Your task to perform on an android device: turn on airplane mode Image 0: 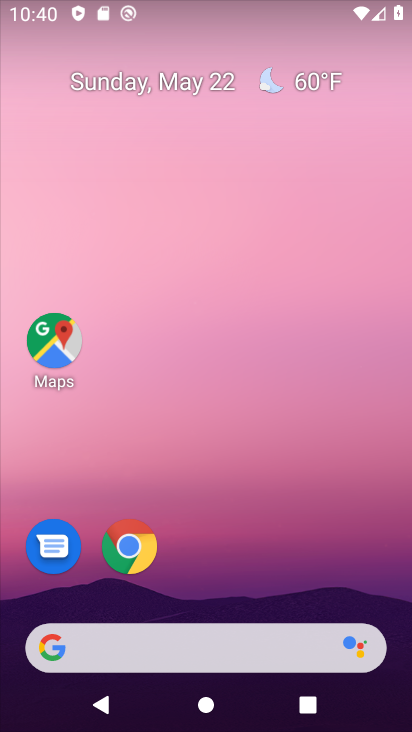
Step 0: drag from (230, 707) to (230, 135)
Your task to perform on an android device: turn on airplane mode Image 1: 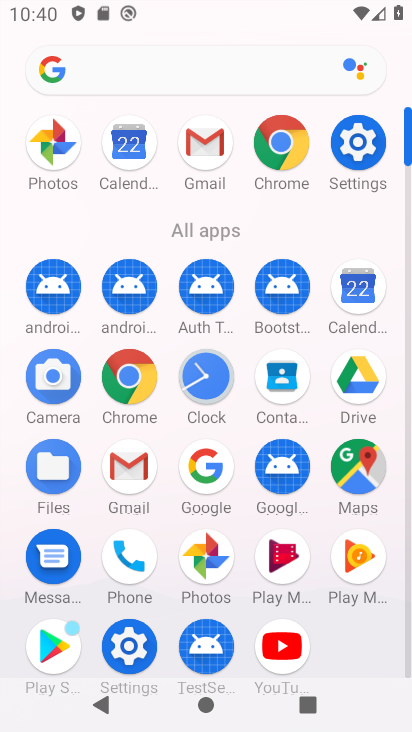
Step 1: click (357, 146)
Your task to perform on an android device: turn on airplane mode Image 2: 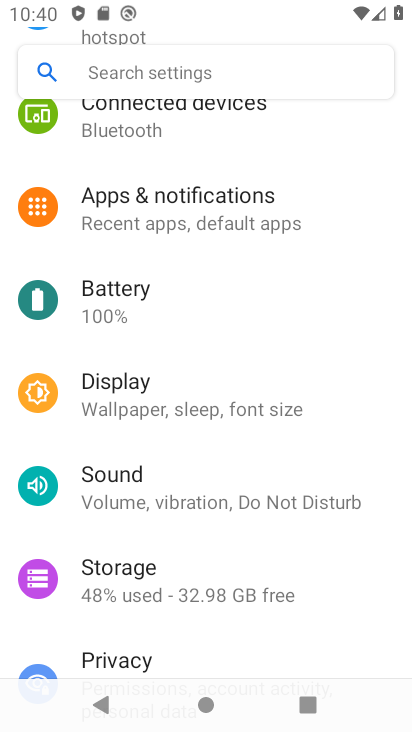
Step 2: drag from (208, 201) to (206, 599)
Your task to perform on an android device: turn on airplane mode Image 3: 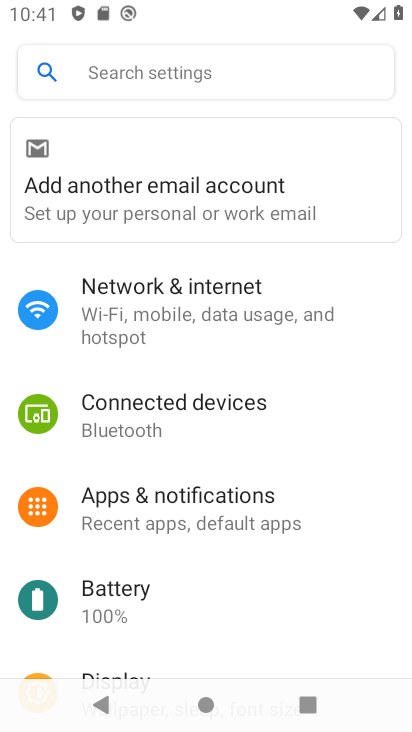
Step 3: click (167, 297)
Your task to perform on an android device: turn on airplane mode Image 4: 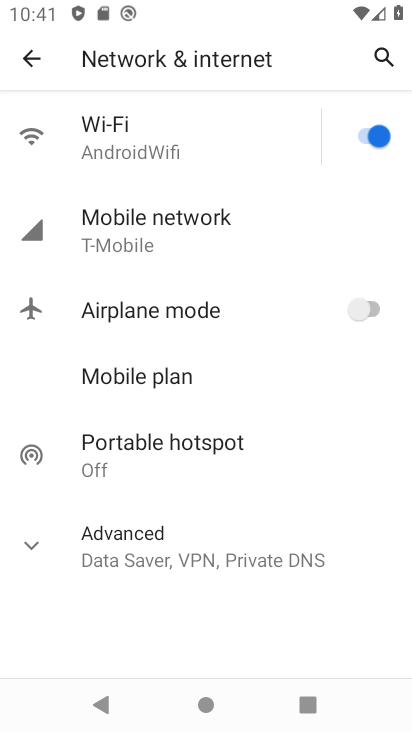
Step 4: click (374, 304)
Your task to perform on an android device: turn on airplane mode Image 5: 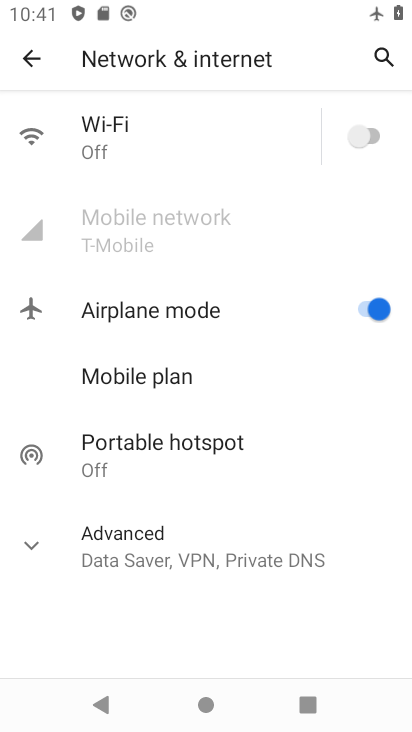
Step 5: task complete